Your task to perform on an android device: Open my contact list Image 0: 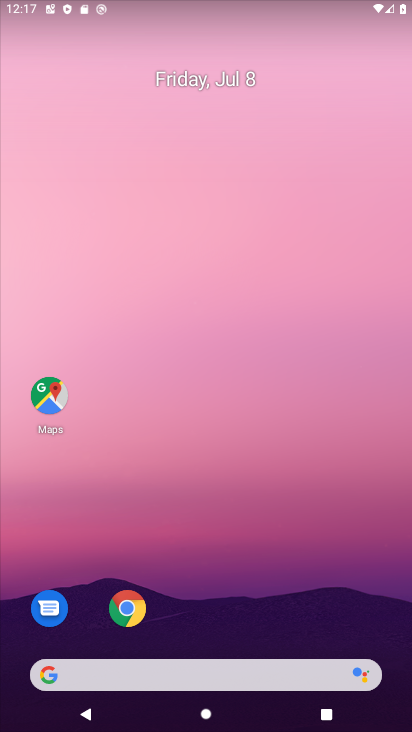
Step 0: drag from (283, 578) to (195, 212)
Your task to perform on an android device: Open my contact list Image 1: 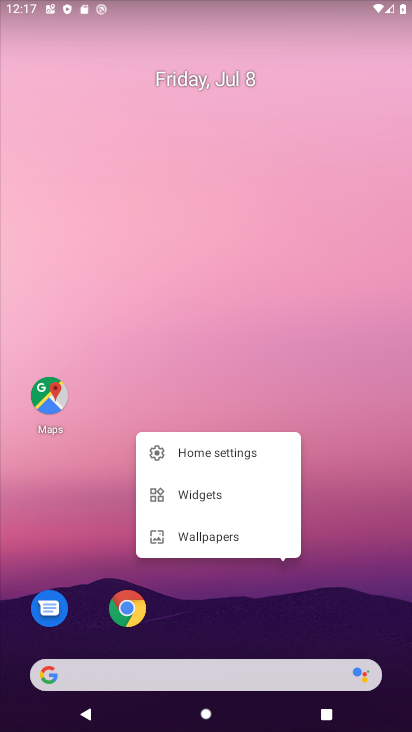
Step 1: click (252, 304)
Your task to perform on an android device: Open my contact list Image 2: 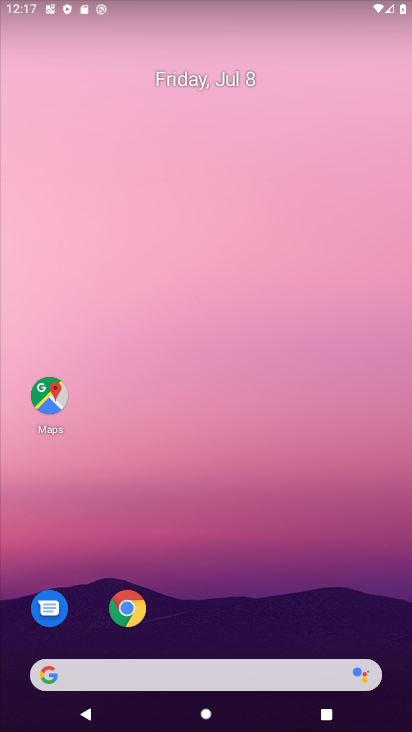
Step 2: drag from (310, 612) to (189, 48)
Your task to perform on an android device: Open my contact list Image 3: 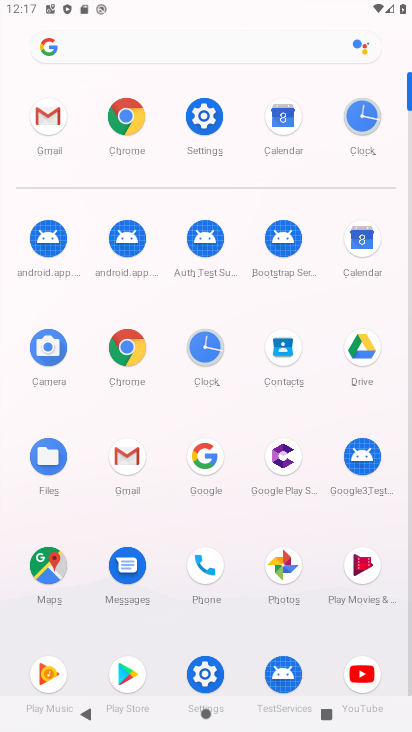
Step 3: click (282, 356)
Your task to perform on an android device: Open my contact list Image 4: 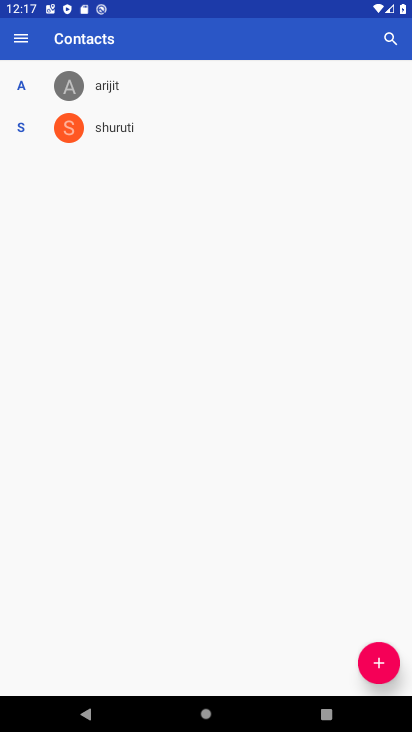
Step 4: task complete